Your task to perform on an android device: Search for vegetarian restaurants on Maps Image 0: 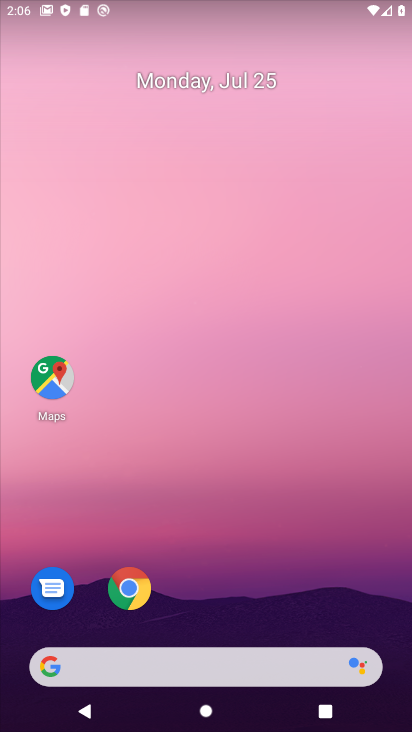
Step 0: click (62, 392)
Your task to perform on an android device: Search for vegetarian restaurants on Maps Image 1: 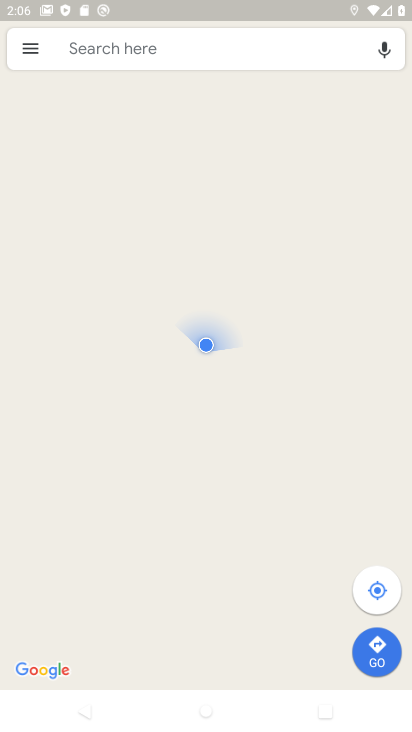
Step 1: click (136, 47)
Your task to perform on an android device: Search for vegetarian restaurants on Maps Image 2: 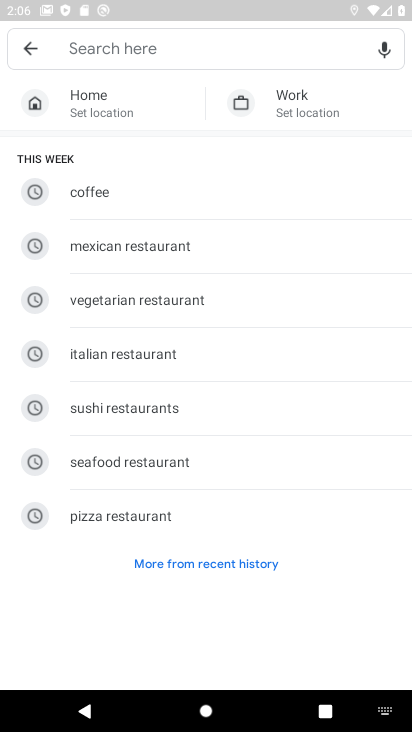
Step 2: type "vegetarian restaurants"
Your task to perform on an android device: Search for vegetarian restaurants on Maps Image 3: 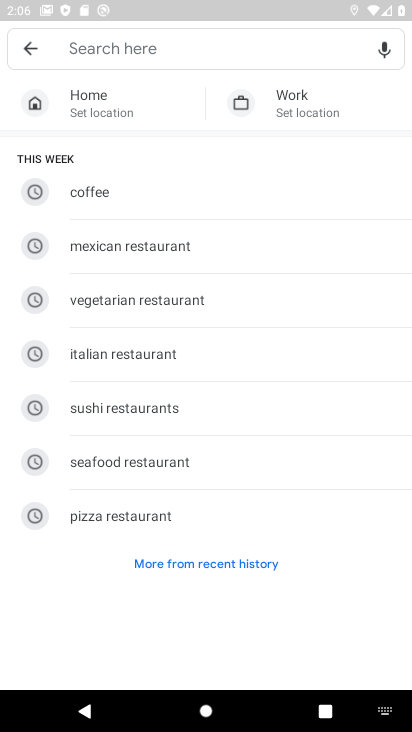
Step 3: click (107, 295)
Your task to perform on an android device: Search for vegetarian restaurants on Maps Image 4: 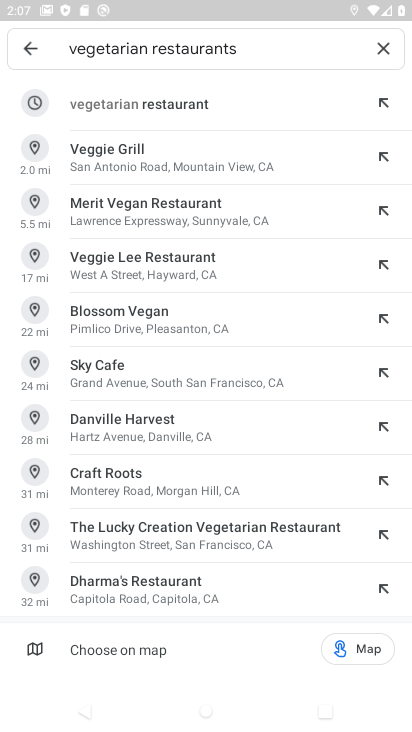
Step 4: click (158, 89)
Your task to perform on an android device: Search for vegetarian restaurants on Maps Image 5: 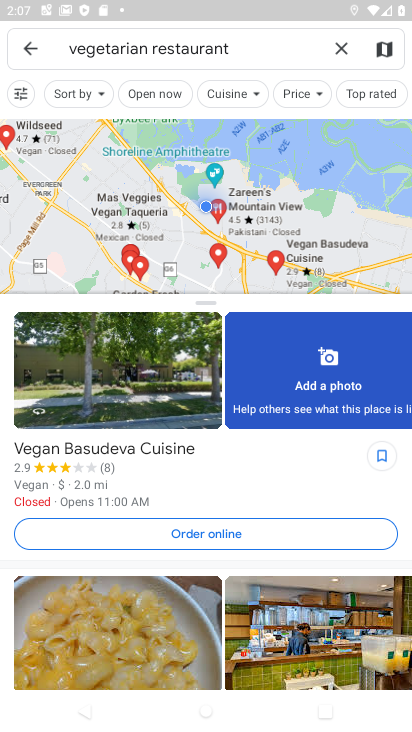
Step 5: task complete